Your task to perform on an android device: change the clock style Image 0: 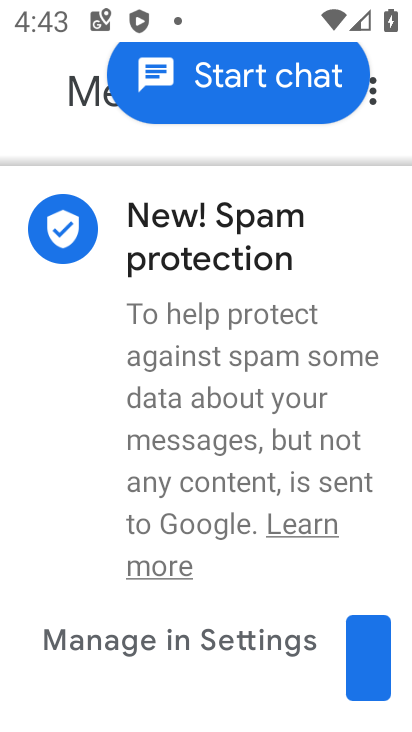
Step 0: press home button
Your task to perform on an android device: change the clock style Image 1: 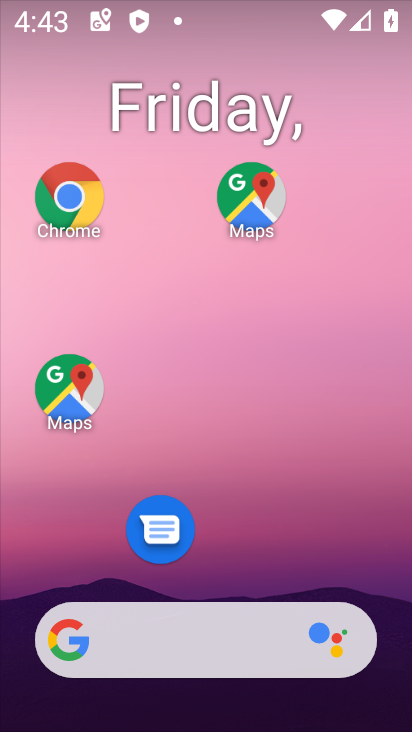
Step 1: drag from (257, 215) to (256, 68)
Your task to perform on an android device: change the clock style Image 2: 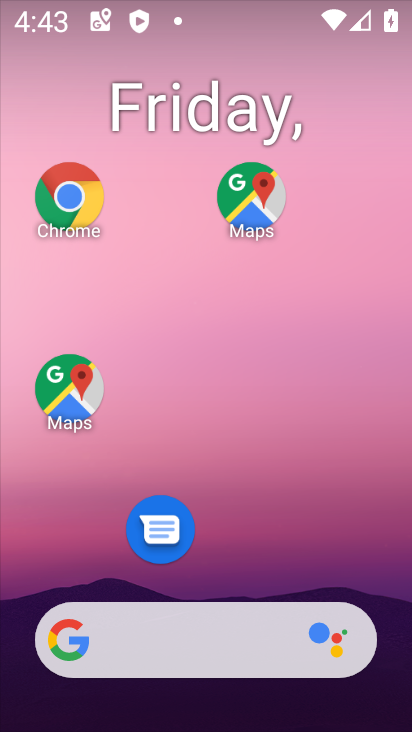
Step 2: drag from (213, 403) to (221, 13)
Your task to perform on an android device: change the clock style Image 3: 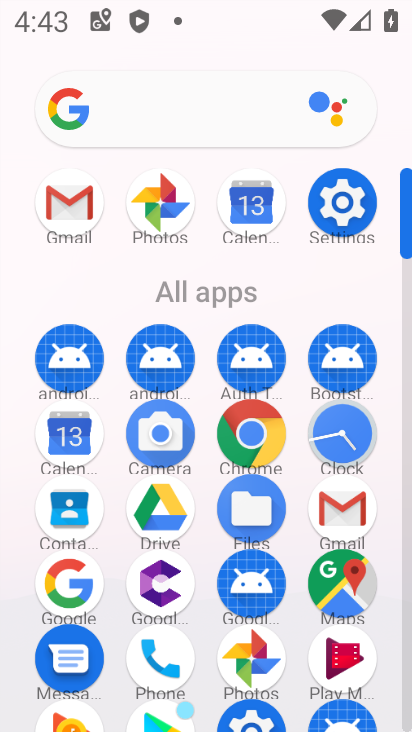
Step 3: click (345, 425)
Your task to perform on an android device: change the clock style Image 4: 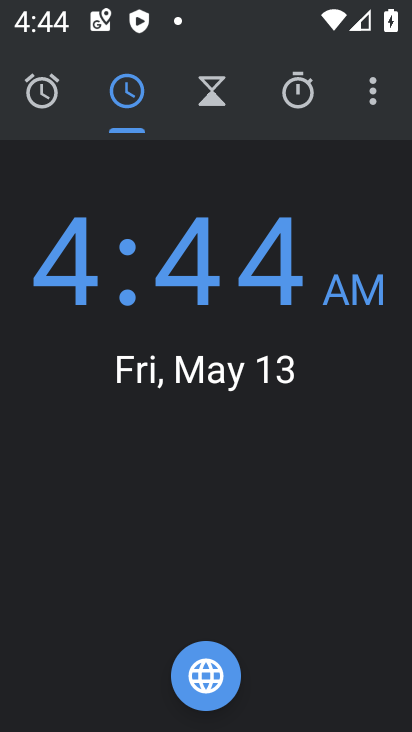
Step 4: click (371, 108)
Your task to perform on an android device: change the clock style Image 5: 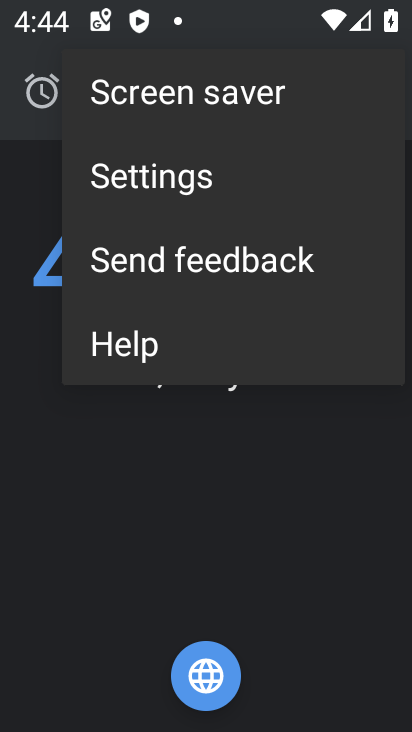
Step 5: click (168, 188)
Your task to perform on an android device: change the clock style Image 6: 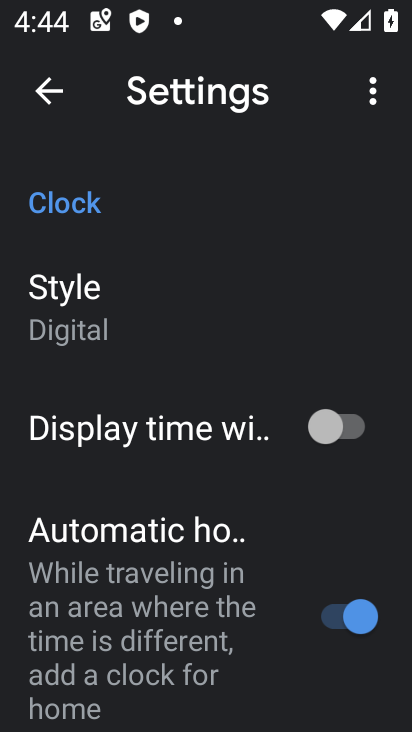
Step 6: click (82, 315)
Your task to perform on an android device: change the clock style Image 7: 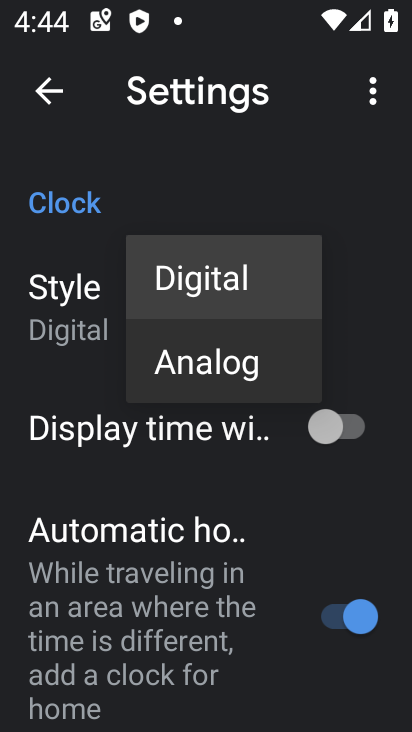
Step 7: click (186, 372)
Your task to perform on an android device: change the clock style Image 8: 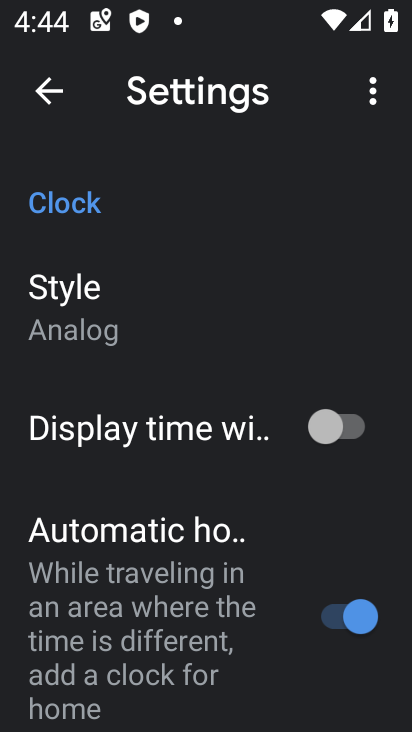
Step 8: task complete